Your task to perform on an android device: Open the Play Movies app and select the watchlist tab. Image 0: 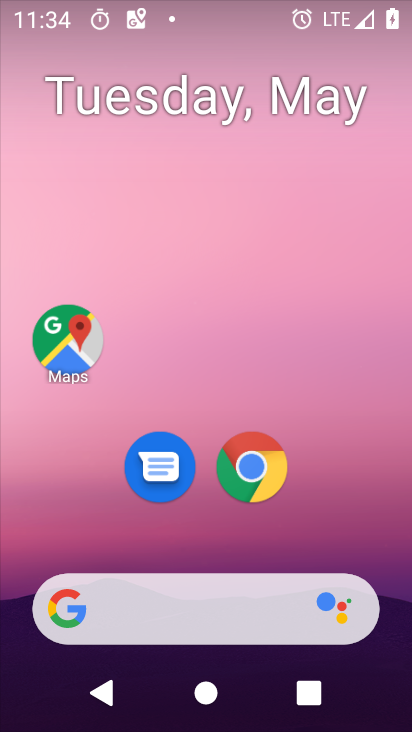
Step 0: drag from (341, 400) to (276, 28)
Your task to perform on an android device: Open the Play Movies app and select the watchlist tab. Image 1: 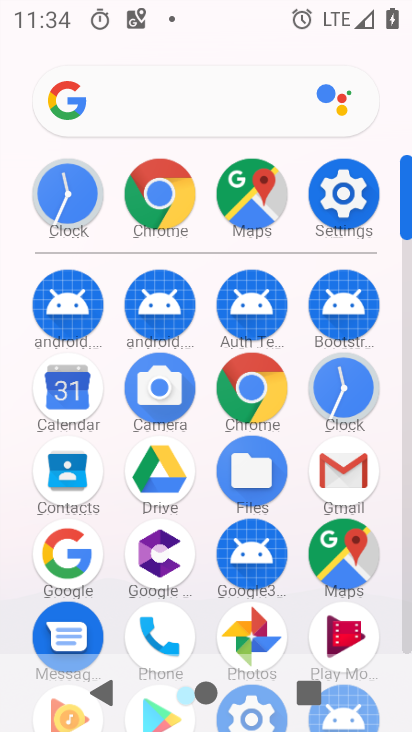
Step 1: drag from (18, 577) to (15, 209)
Your task to perform on an android device: Open the Play Movies app and select the watchlist tab. Image 2: 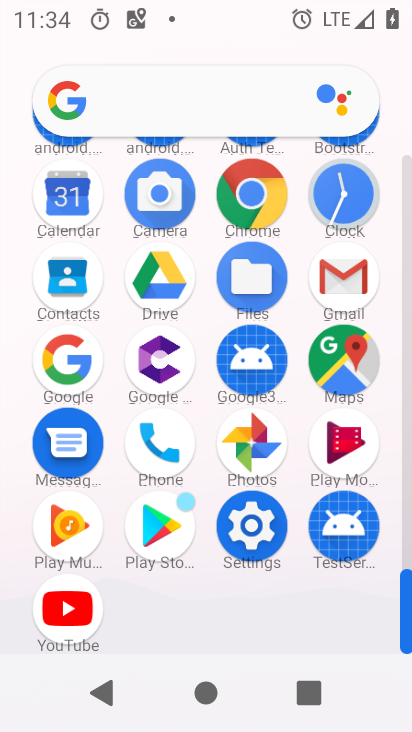
Step 2: click (344, 434)
Your task to perform on an android device: Open the Play Movies app and select the watchlist tab. Image 3: 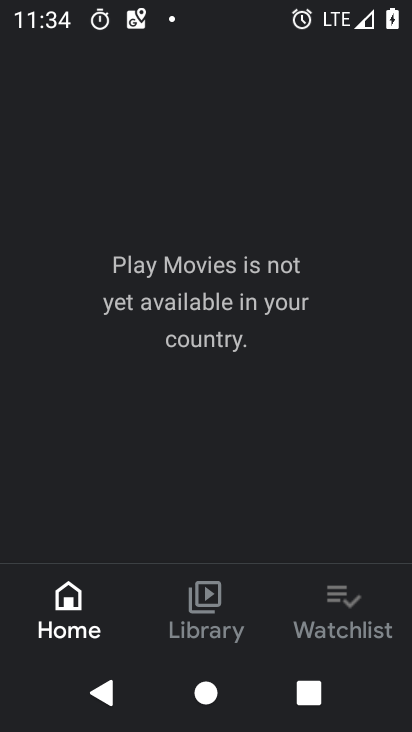
Step 3: click (340, 593)
Your task to perform on an android device: Open the Play Movies app and select the watchlist tab. Image 4: 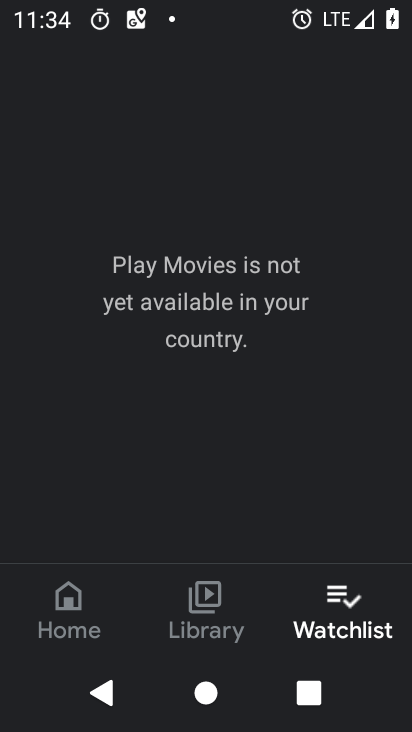
Step 4: task complete